Your task to perform on an android device: Open Google Maps and go to "Timeline" Image 0: 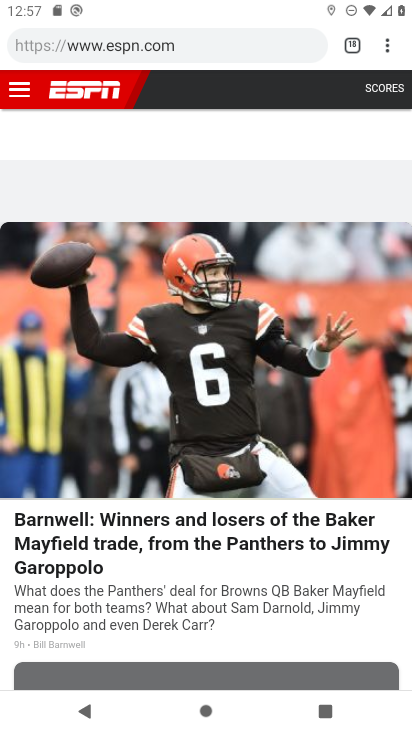
Step 0: press home button
Your task to perform on an android device: Open Google Maps and go to "Timeline" Image 1: 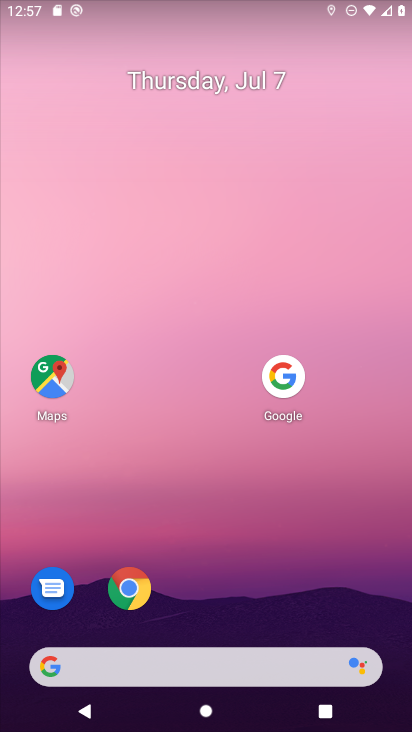
Step 1: click (60, 382)
Your task to perform on an android device: Open Google Maps and go to "Timeline" Image 2: 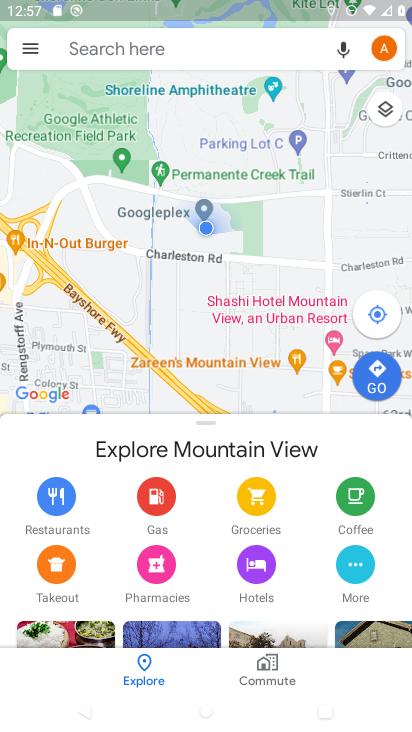
Step 2: click (29, 48)
Your task to perform on an android device: Open Google Maps and go to "Timeline" Image 3: 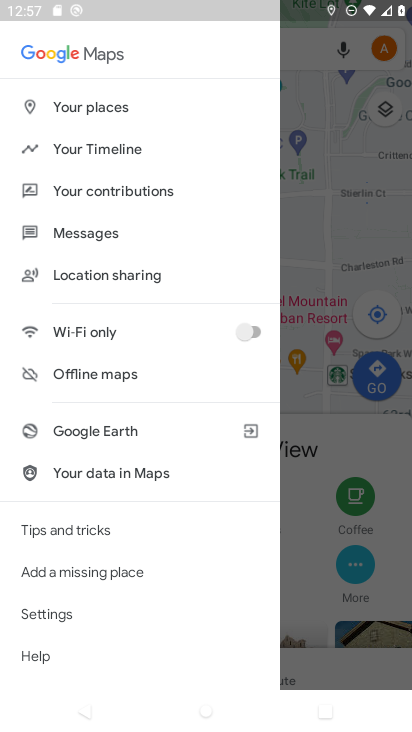
Step 3: click (103, 150)
Your task to perform on an android device: Open Google Maps and go to "Timeline" Image 4: 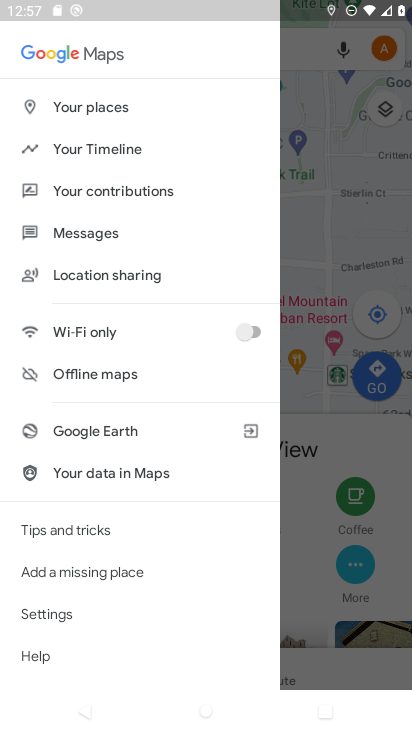
Step 4: click (96, 145)
Your task to perform on an android device: Open Google Maps and go to "Timeline" Image 5: 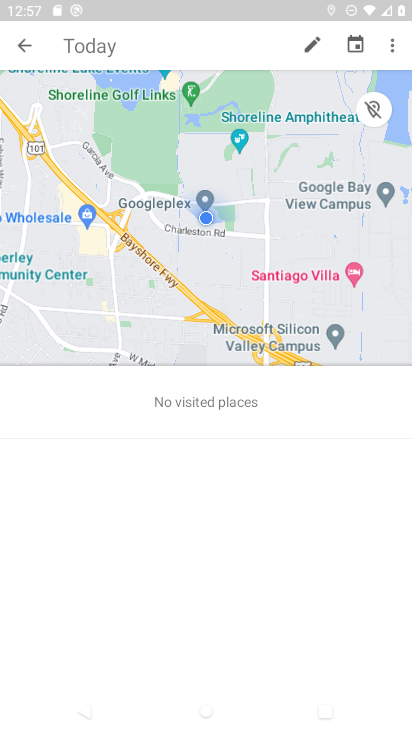
Step 5: task complete